Your task to perform on an android device: turn on priority inbox in the gmail app Image 0: 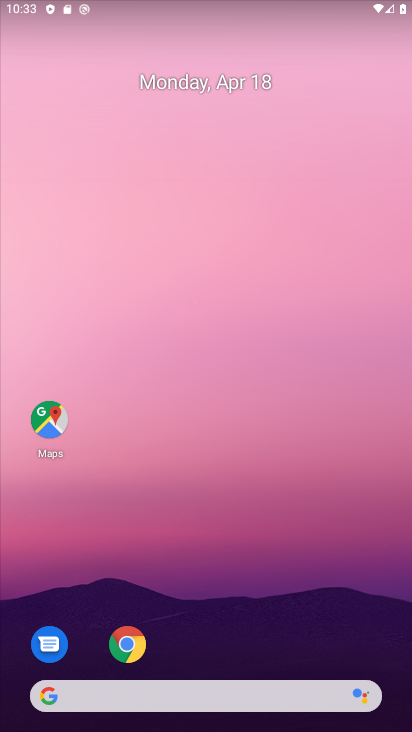
Step 0: drag from (192, 532) to (243, 112)
Your task to perform on an android device: turn on priority inbox in the gmail app Image 1: 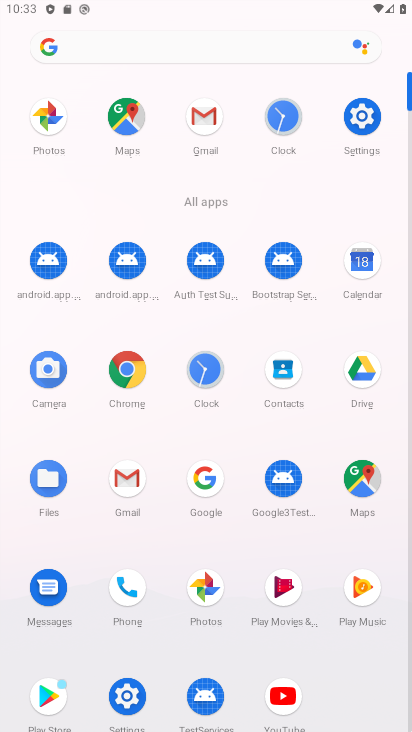
Step 1: click (191, 125)
Your task to perform on an android device: turn on priority inbox in the gmail app Image 2: 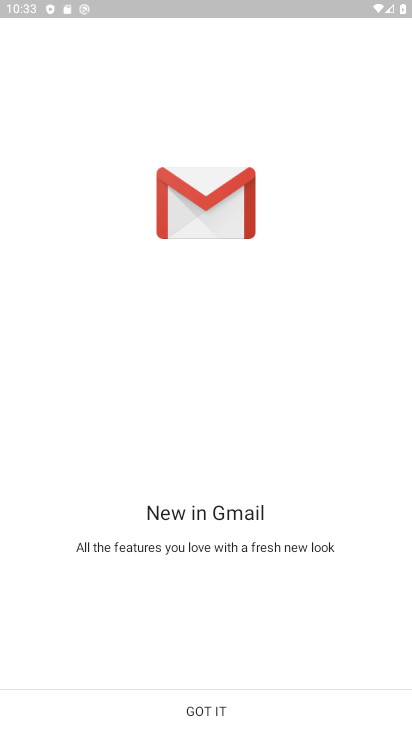
Step 2: click (225, 708)
Your task to perform on an android device: turn on priority inbox in the gmail app Image 3: 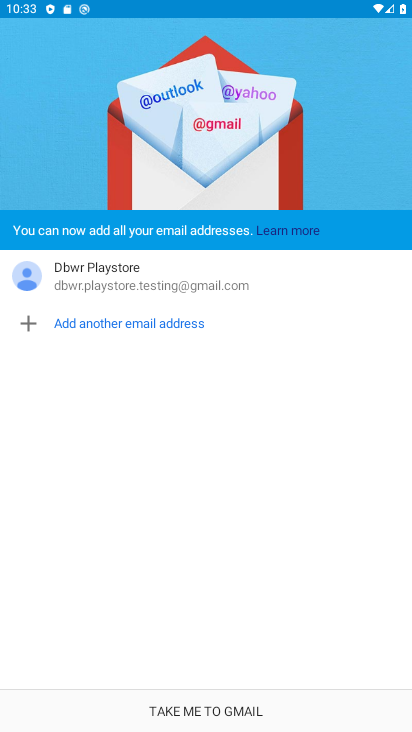
Step 3: click (203, 712)
Your task to perform on an android device: turn on priority inbox in the gmail app Image 4: 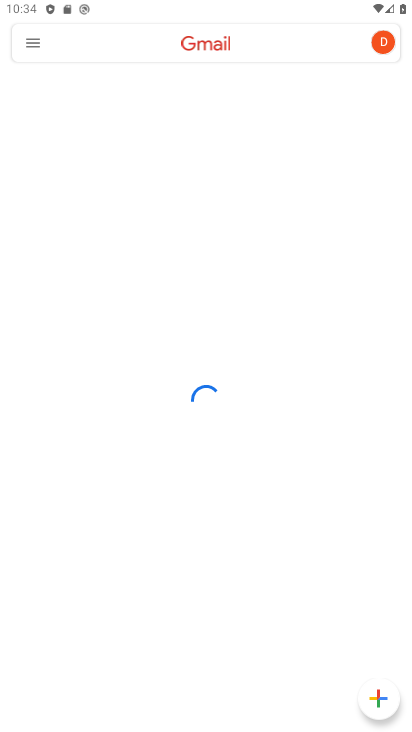
Step 4: click (31, 46)
Your task to perform on an android device: turn on priority inbox in the gmail app Image 5: 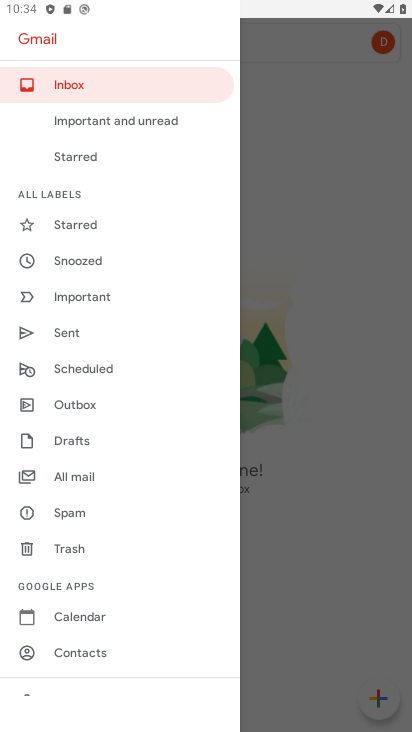
Step 5: drag from (105, 627) to (127, 183)
Your task to perform on an android device: turn on priority inbox in the gmail app Image 6: 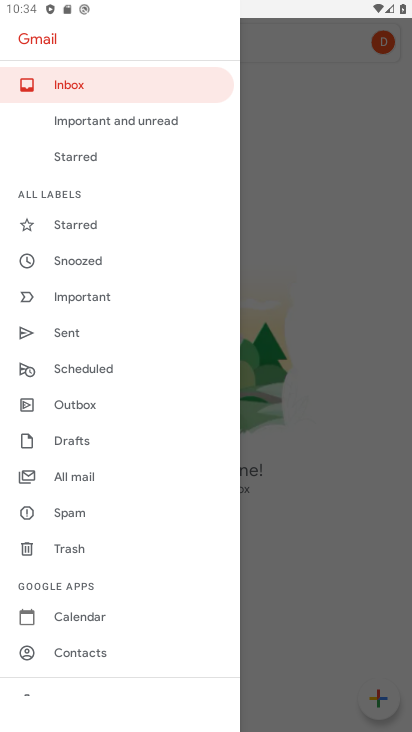
Step 6: drag from (79, 563) to (105, 186)
Your task to perform on an android device: turn on priority inbox in the gmail app Image 7: 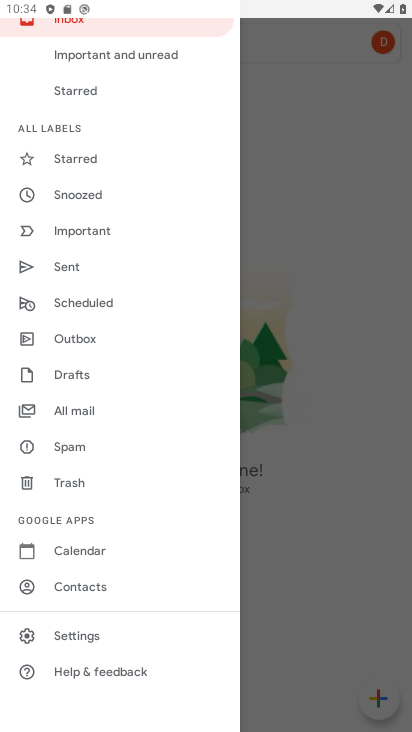
Step 7: click (72, 638)
Your task to perform on an android device: turn on priority inbox in the gmail app Image 8: 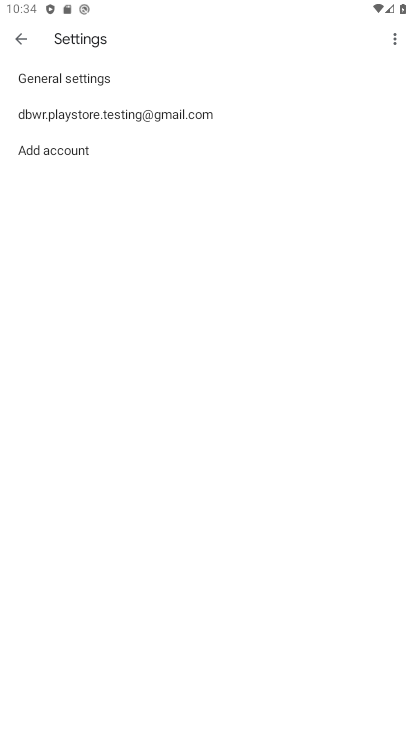
Step 8: click (125, 113)
Your task to perform on an android device: turn on priority inbox in the gmail app Image 9: 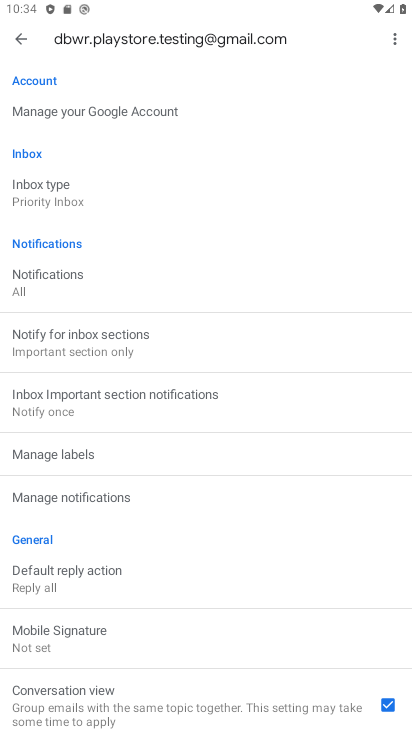
Step 9: click (49, 188)
Your task to perform on an android device: turn on priority inbox in the gmail app Image 10: 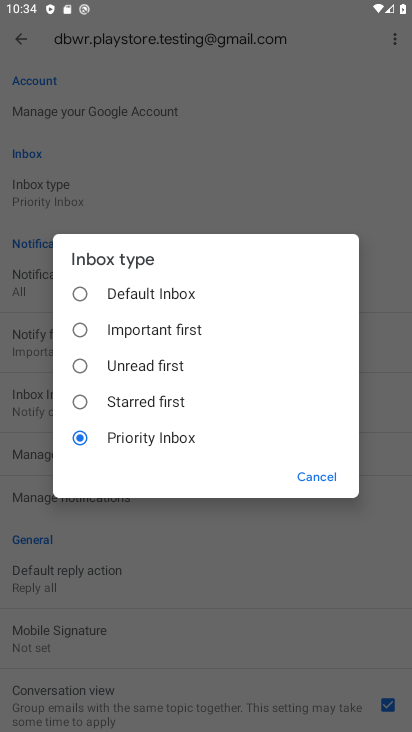
Step 10: click (160, 439)
Your task to perform on an android device: turn on priority inbox in the gmail app Image 11: 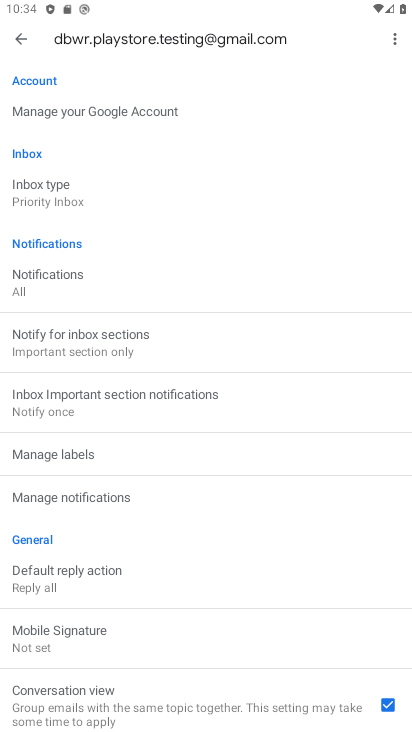
Step 11: task complete